Your task to perform on an android device: Turn off the flashlight Image 0: 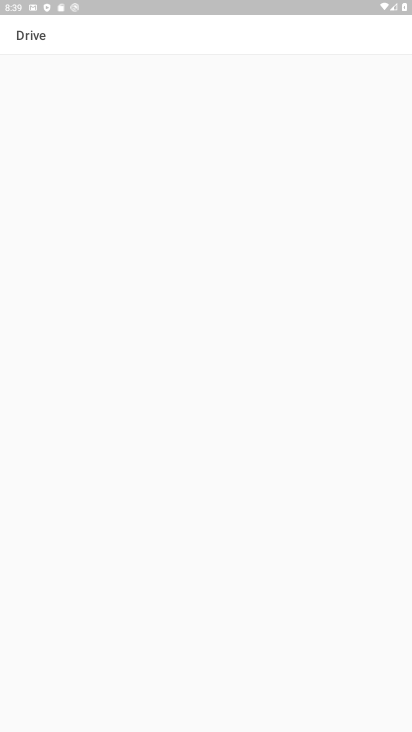
Step 0: press home button
Your task to perform on an android device: Turn off the flashlight Image 1: 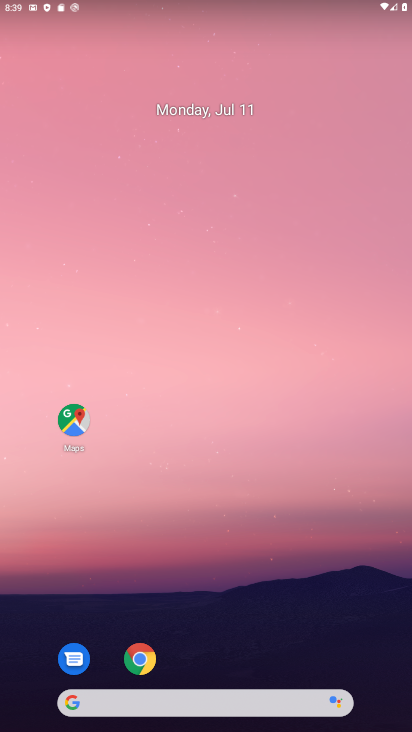
Step 1: task complete